Your task to perform on an android device: change notification settings in the gmail app Image 0: 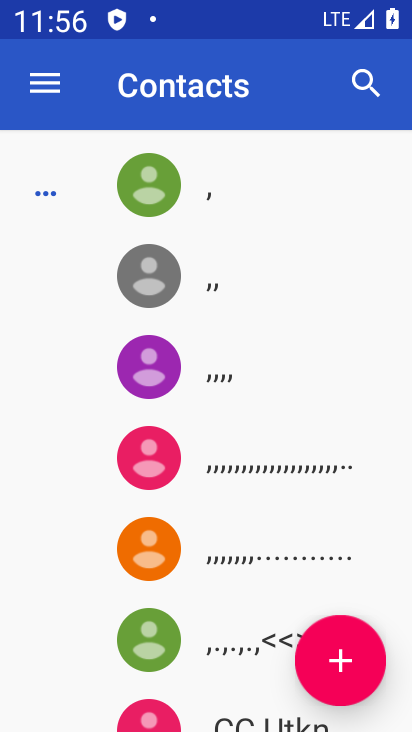
Step 0: press home button
Your task to perform on an android device: change notification settings in the gmail app Image 1: 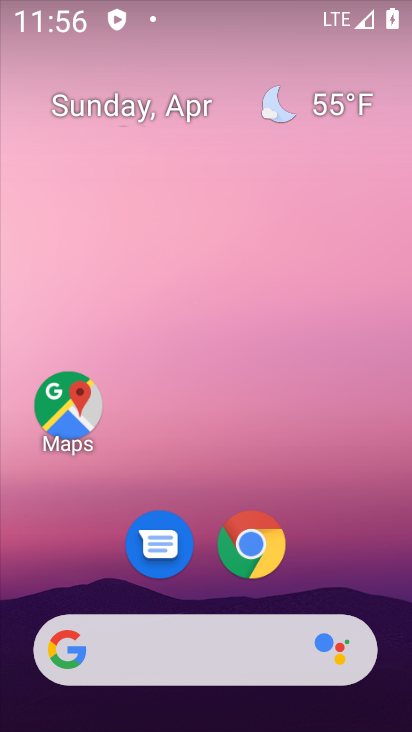
Step 1: drag from (328, 573) to (127, 100)
Your task to perform on an android device: change notification settings in the gmail app Image 2: 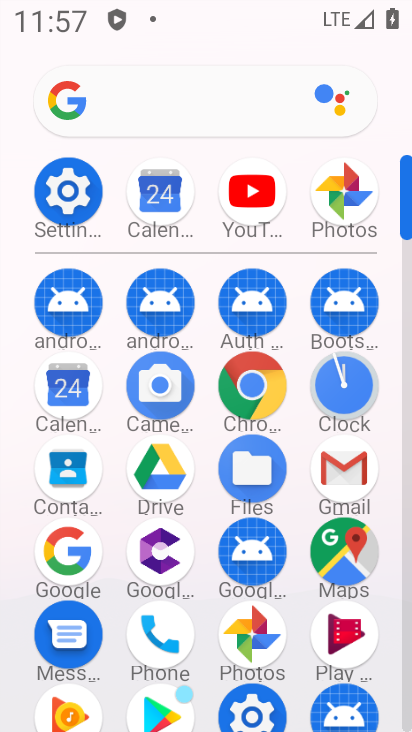
Step 2: click (345, 471)
Your task to perform on an android device: change notification settings in the gmail app Image 3: 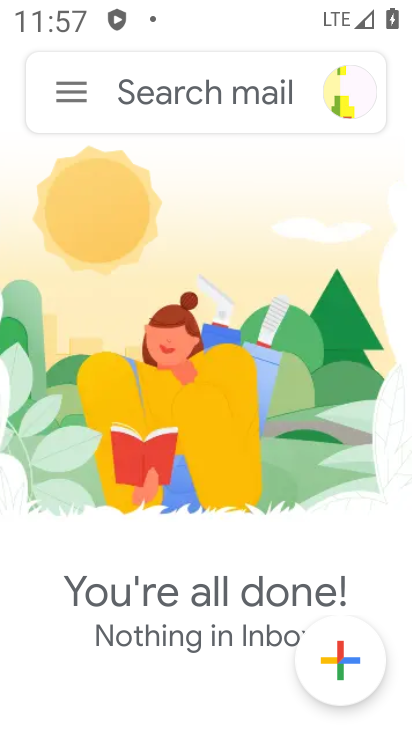
Step 3: click (70, 96)
Your task to perform on an android device: change notification settings in the gmail app Image 4: 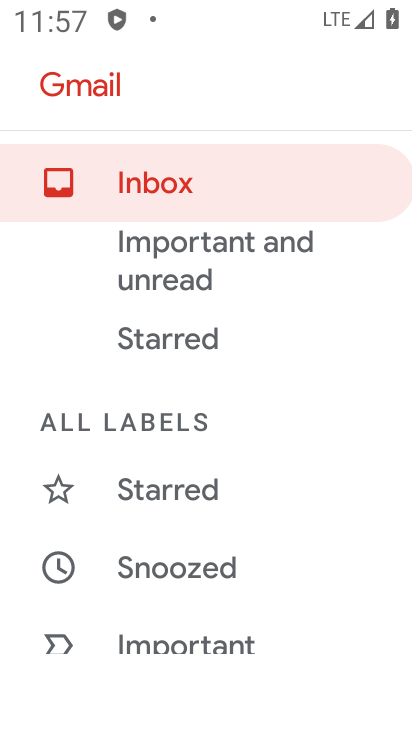
Step 4: drag from (234, 591) to (199, 174)
Your task to perform on an android device: change notification settings in the gmail app Image 5: 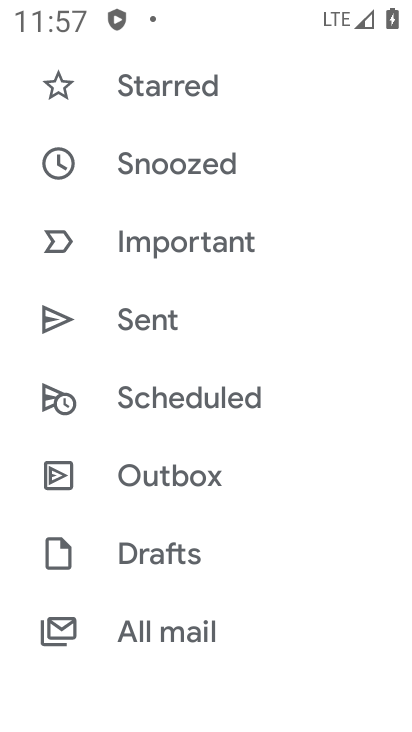
Step 5: drag from (137, 575) to (146, 200)
Your task to perform on an android device: change notification settings in the gmail app Image 6: 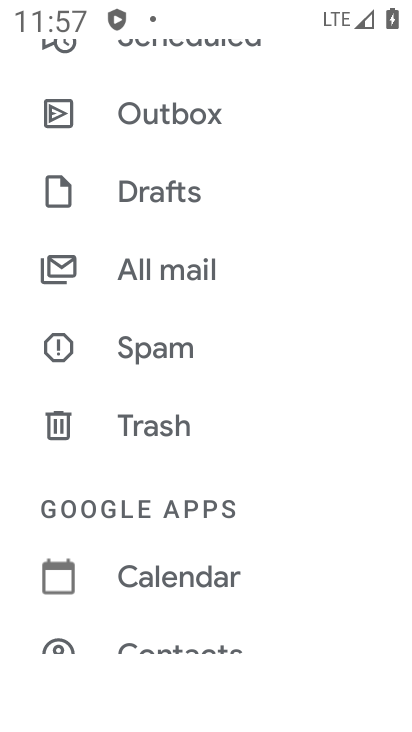
Step 6: drag from (168, 593) to (161, 183)
Your task to perform on an android device: change notification settings in the gmail app Image 7: 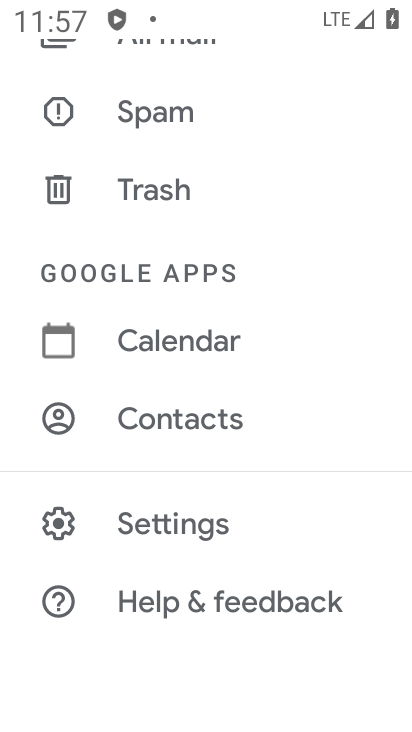
Step 7: click (163, 524)
Your task to perform on an android device: change notification settings in the gmail app Image 8: 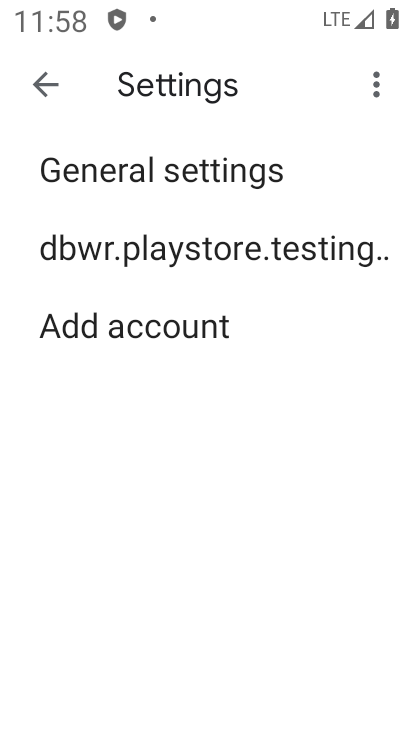
Step 8: click (171, 260)
Your task to perform on an android device: change notification settings in the gmail app Image 9: 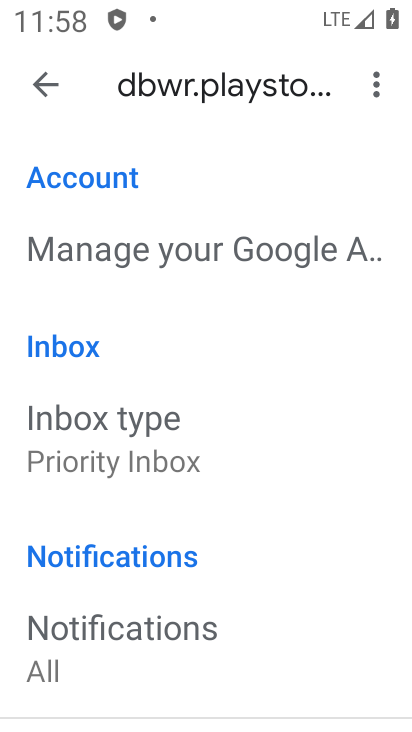
Step 9: drag from (145, 636) to (143, 220)
Your task to perform on an android device: change notification settings in the gmail app Image 10: 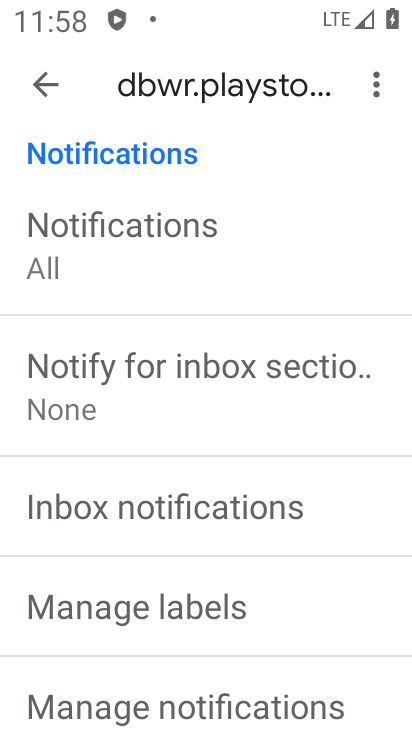
Step 10: drag from (249, 639) to (248, 276)
Your task to perform on an android device: change notification settings in the gmail app Image 11: 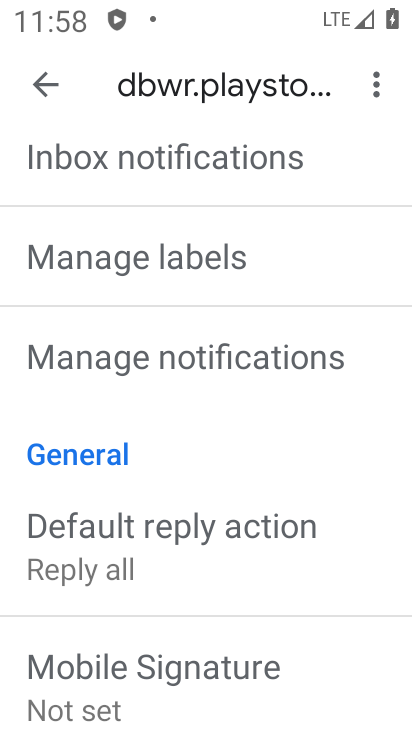
Step 11: click (115, 358)
Your task to perform on an android device: change notification settings in the gmail app Image 12: 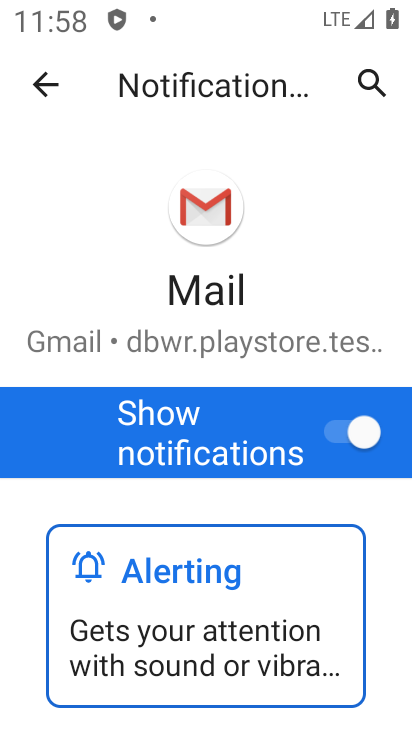
Step 12: click (369, 448)
Your task to perform on an android device: change notification settings in the gmail app Image 13: 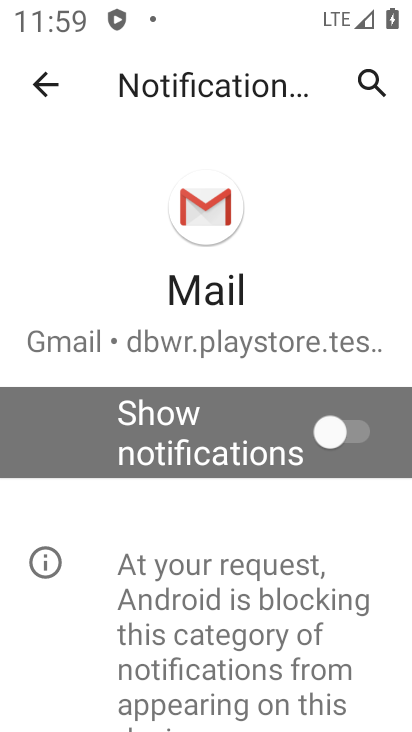
Step 13: task complete